Your task to perform on an android device: Go to Reddit.com Image 0: 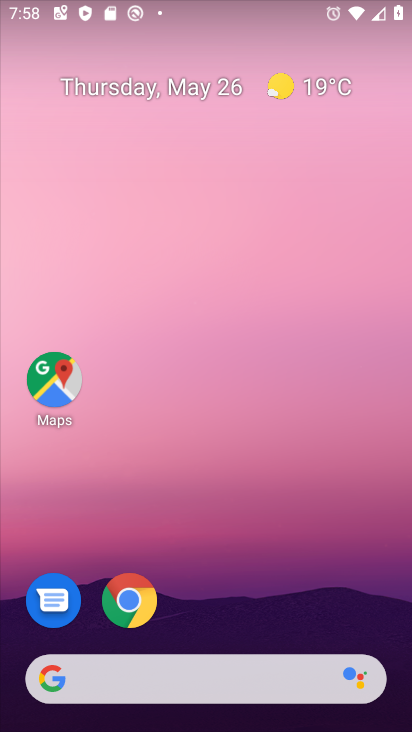
Step 0: click (48, 683)
Your task to perform on an android device: Go to Reddit.com Image 1: 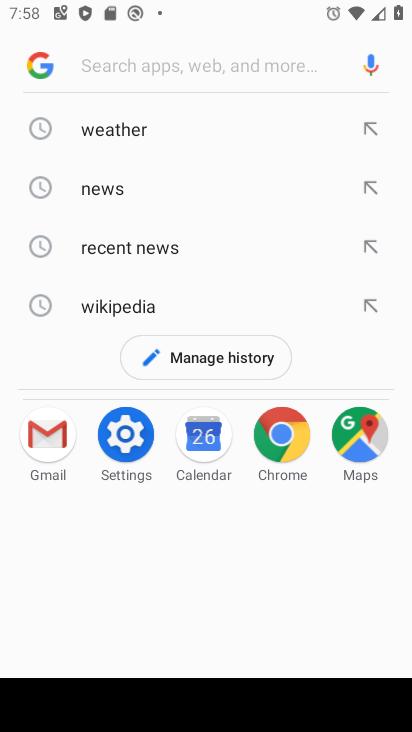
Step 1: type "Reddit.com"
Your task to perform on an android device: Go to Reddit.com Image 2: 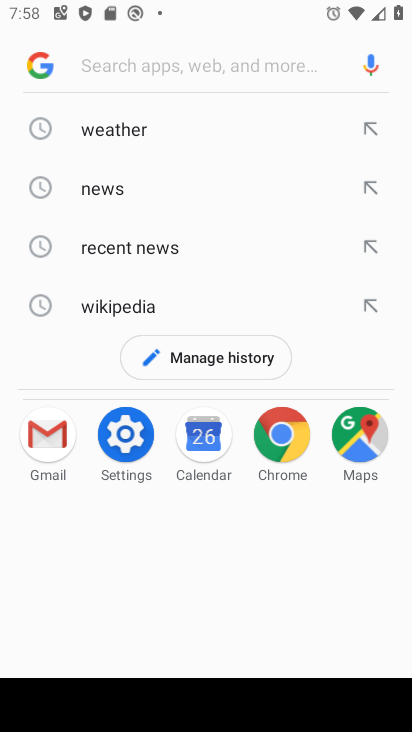
Step 2: click (165, 64)
Your task to perform on an android device: Go to Reddit.com Image 3: 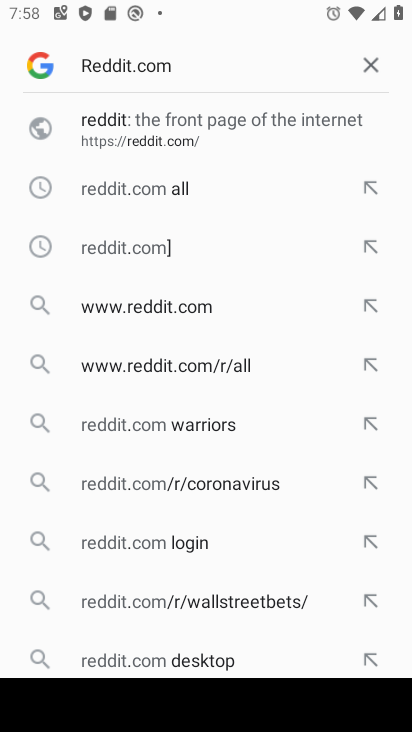
Step 3: click (163, 123)
Your task to perform on an android device: Go to Reddit.com Image 4: 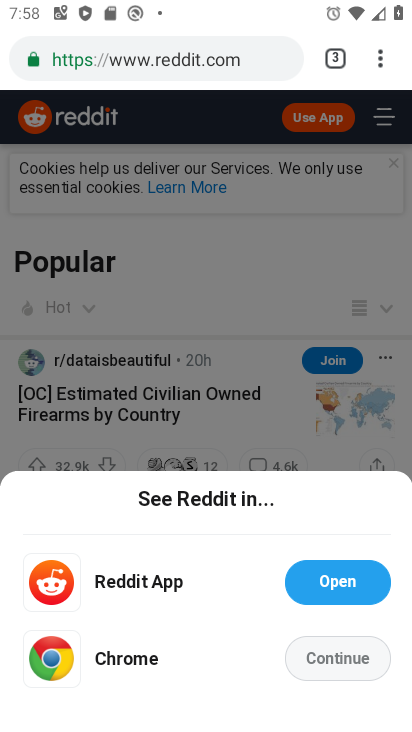
Step 4: task complete